Your task to perform on an android device: open wifi settings Image 0: 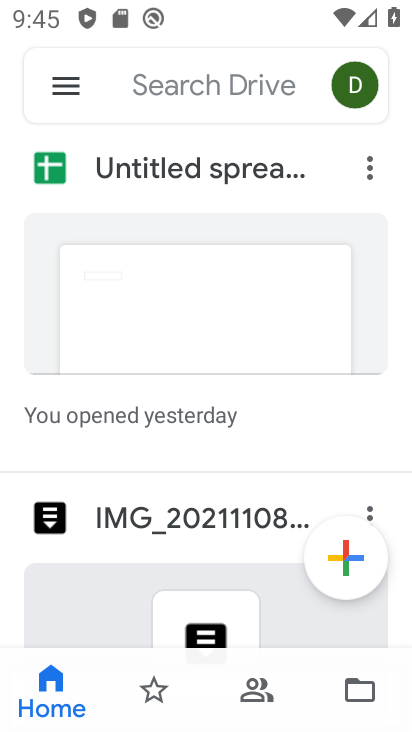
Step 0: press home button
Your task to perform on an android device: open wifi settings Image 1: 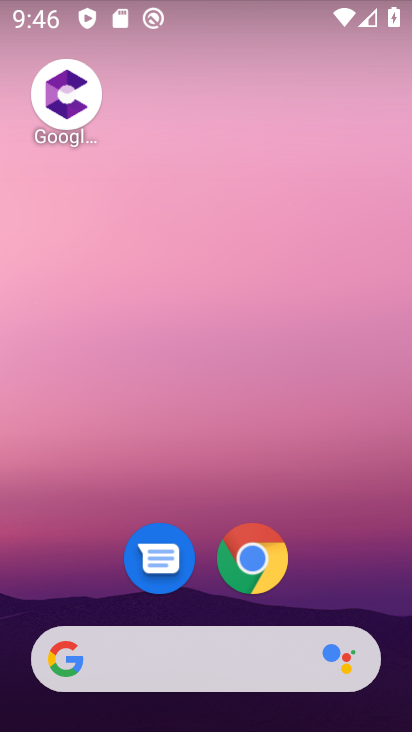
Step 1: drag from (305, 2) to (294, 416)
Your task to perform on an android device: open wifi settings Image 2: 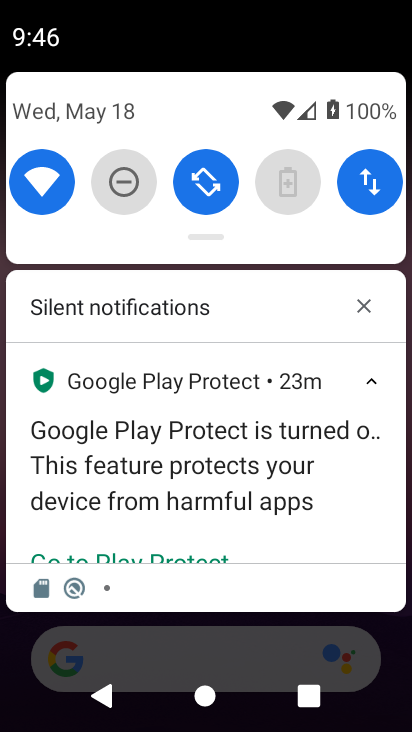
Step 2: click (46, 180)
Your task to perform on an android device: open wifi settings Image 3: 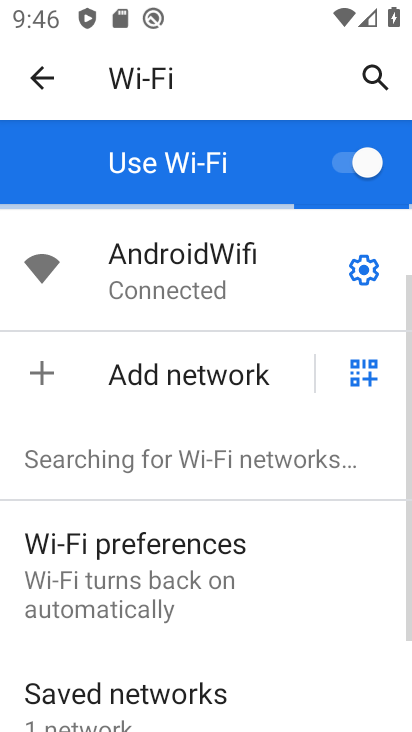
Step 3: click (367, 276)
Your task to perform on an android device: open wifi settings Image 4: 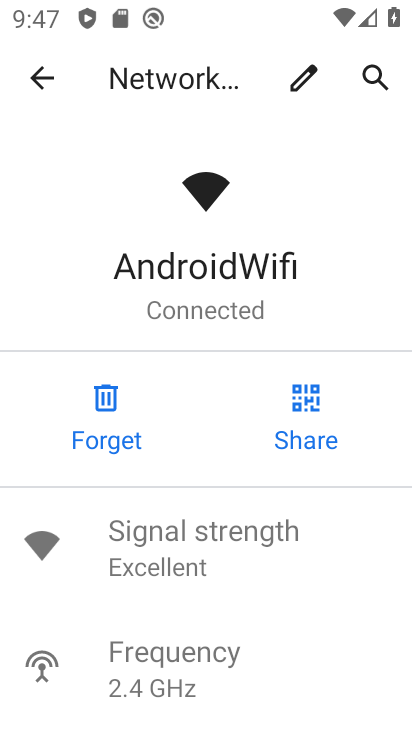
Step 4: task complete